Your task to perform on an android device: delete browsing data in the chrome app Image 0: 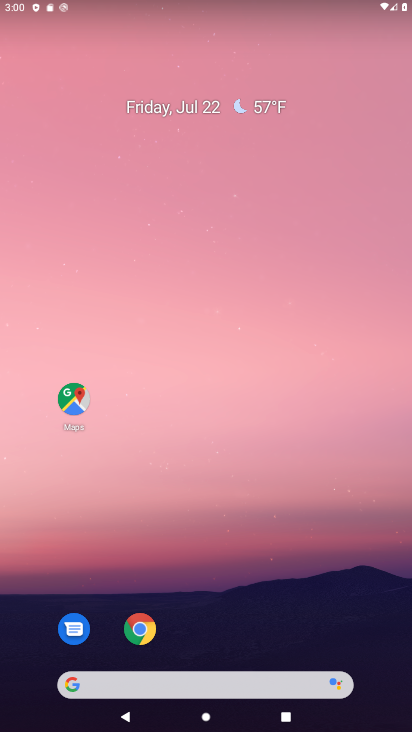
Step 0: drag from (273, 629) to (302, 149)
Your task to perform on an android device: delete browsing data in the chrome app Image 1: 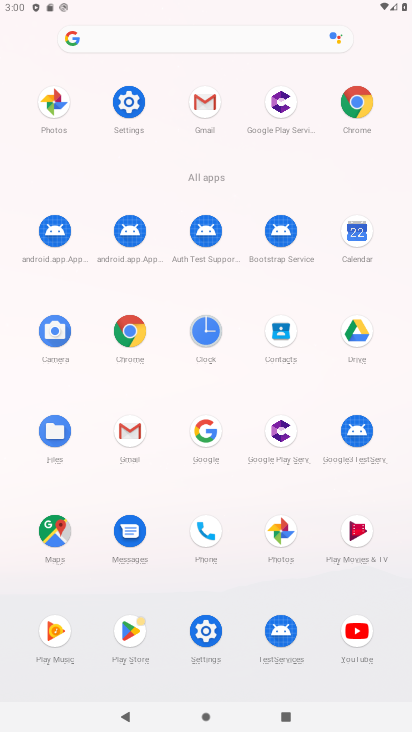
Step 1: click (354, 117)
Your task to perform on an android device: delete browsing data in the chrome app Image 2: 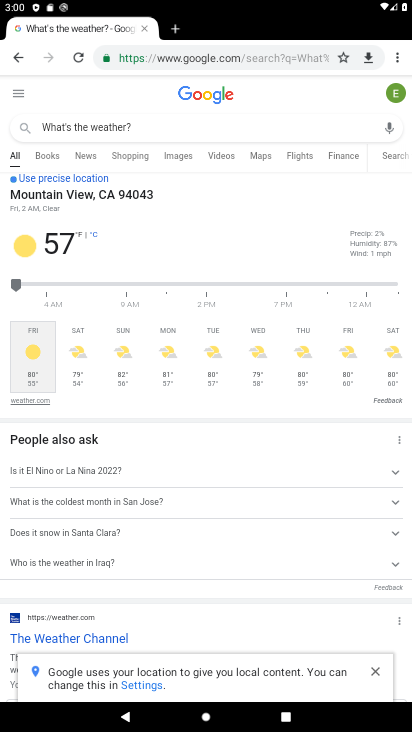
Step 2: click (393, 55)
Your task to perform on an android device: delete browsing data in the chrome app Image 3: 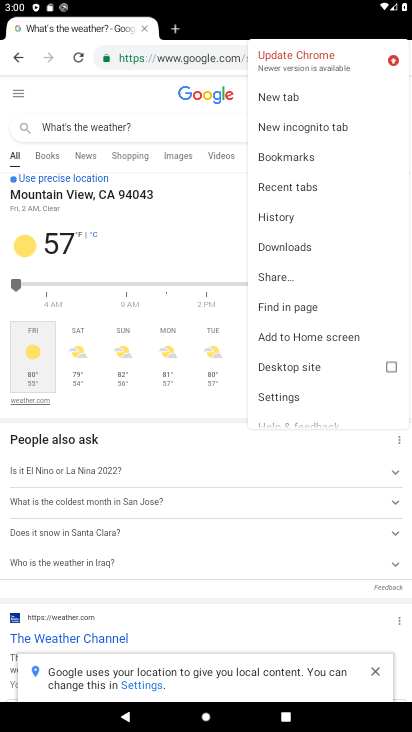
Step 3: click (284, 394)
Your task to perform on an android device: delete browsing data in the chrome app Image 4: 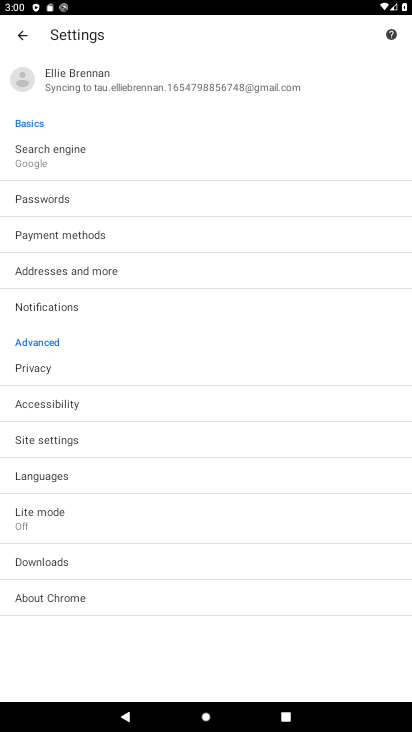
Step 4: click (26, 40)
Your task to perform on an android device: delete browsing data in the chrome app Image 5: 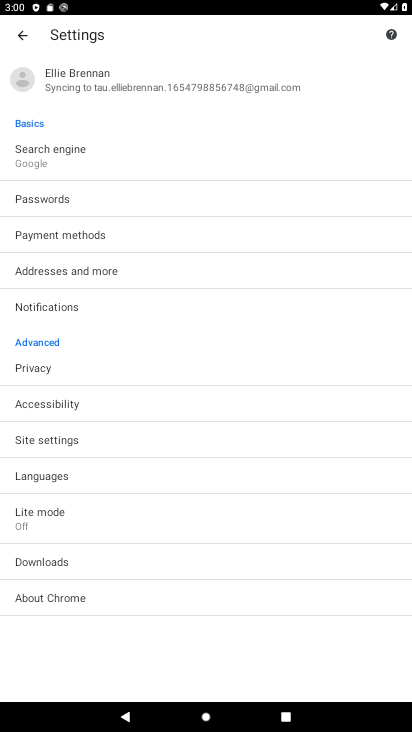
Step 5: click (26, 40)
Your task to perform on an android device: delete browsing data in the chrome app Image 6: 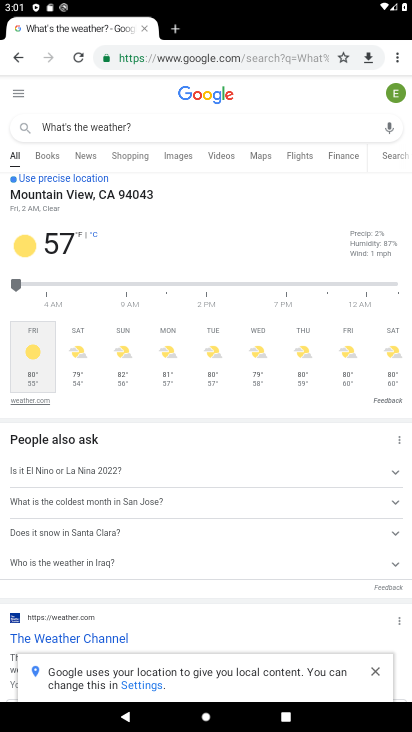
Step 6: click (394, 60)
Your task to perform on an android device: delete browsing data in the chrome app Image 7: 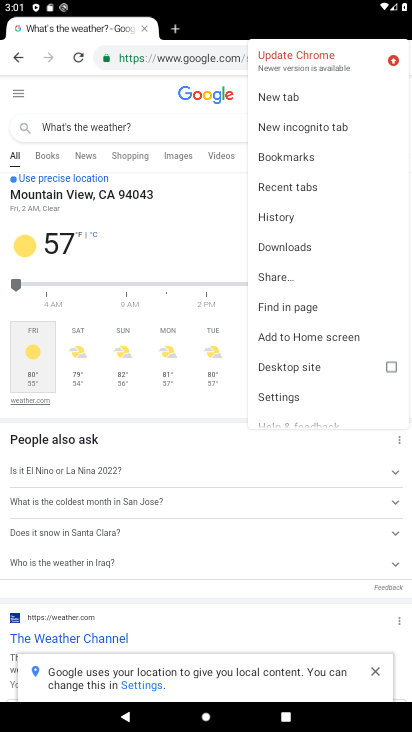
Step 7: click (289, 217)
Your task to perform on an android device: delete browsing data in the chrome app Image 8: 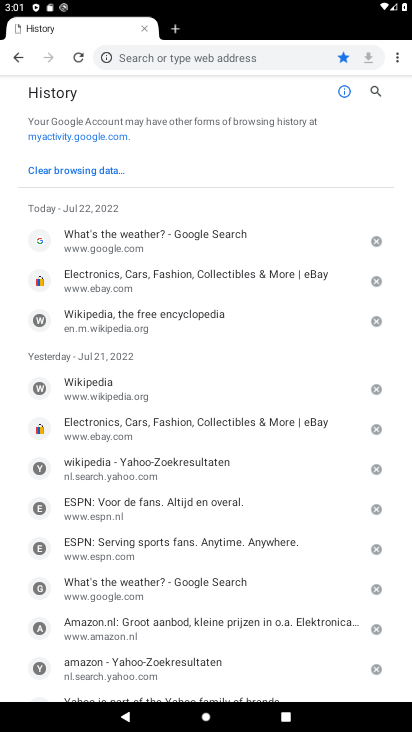
Step 8: click (105, 168)
Your task to perform on an android device: delete browsing data in the chrome app Image 9: 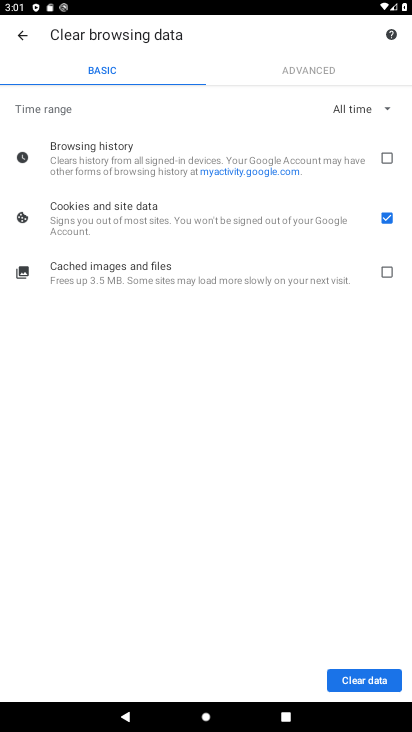
Step 9: click (385, 220)
Your task to perform on an android device: delete browsing data in the chrome app Image 10: 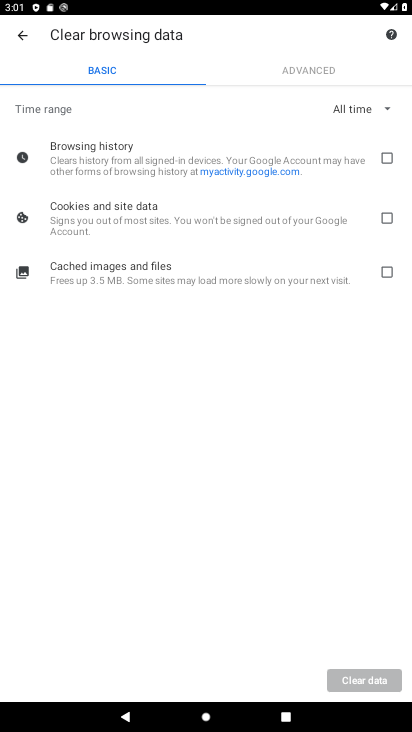
Step 10: click (390, 161)
Your task to perform on an android device: delete browsing data in the chrome app Image 11: 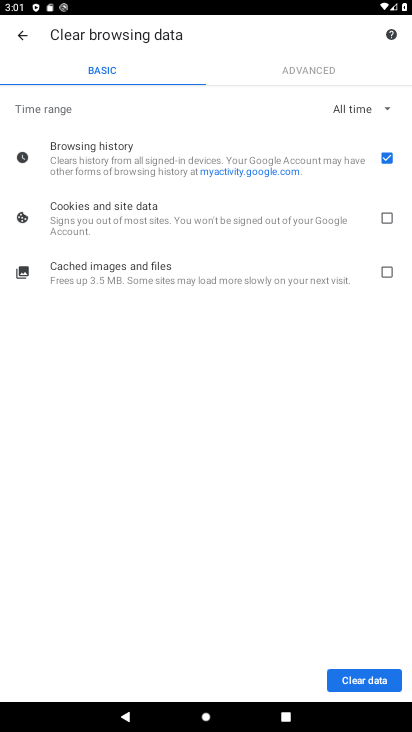
Step 11: click (380, 678)
Your task to perform on an android device: delete browsing data in the chrome app Image 12: 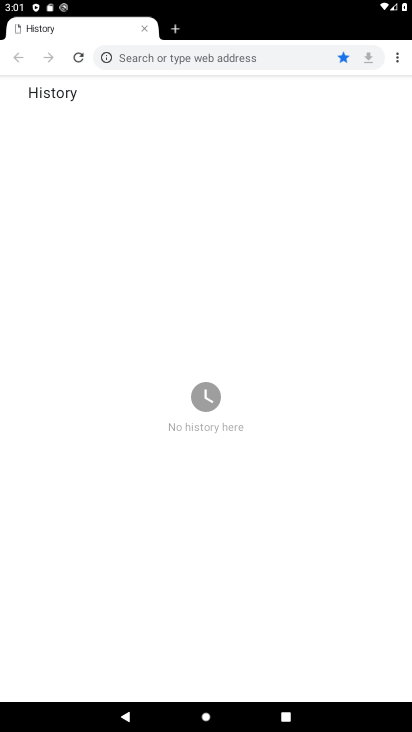
Step 12: task complete